Your task to perform on an android device: snooze an email in the gmail app Image 0: 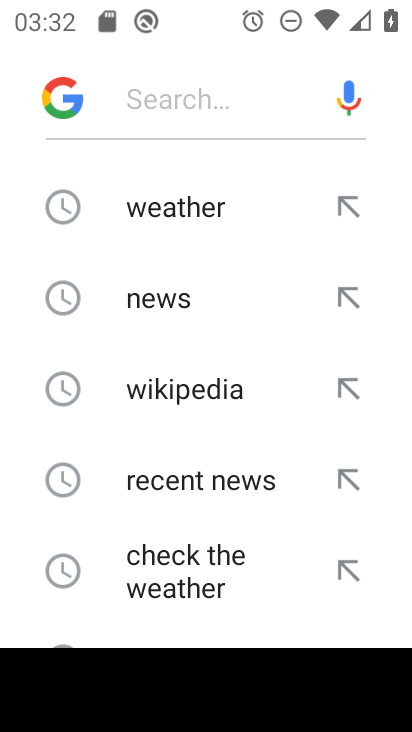
Step 0: press home button
Your task to perform on an android device: snooze an email in the gmail app Image 1: 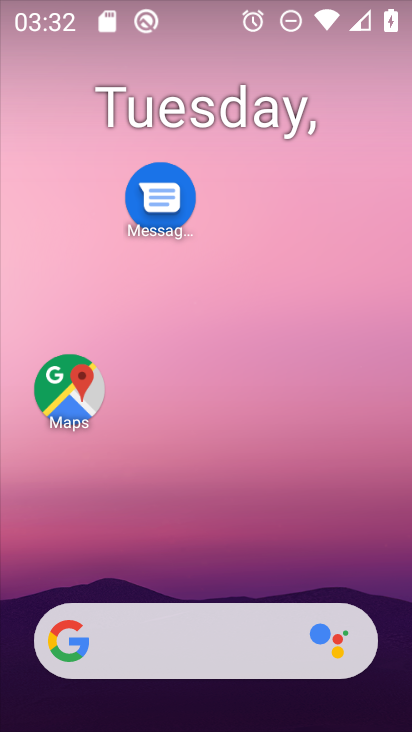
Step 1: drag from (221, 554) to (341, 136)
Your task to perform on an android device: snooze an email in the gmail app Image 2: 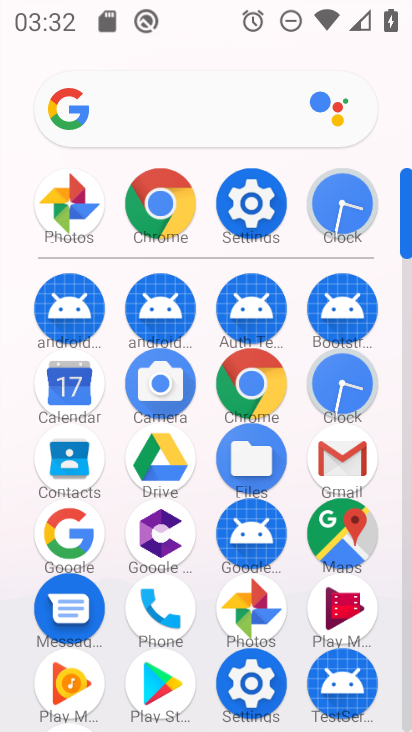
Step 2: click (324, 473)
Your task to perform on an android device: snooze an email in the gmail app Image 3: 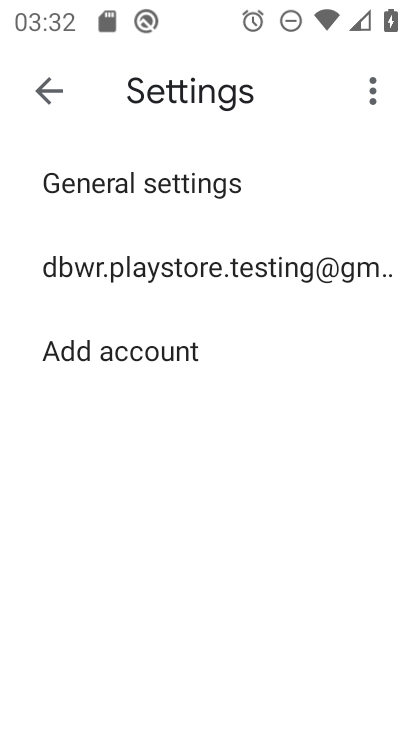
Step 3: click (60, 82)
Your task to perform on an android device: snooze an email in the gmail app Image 4: 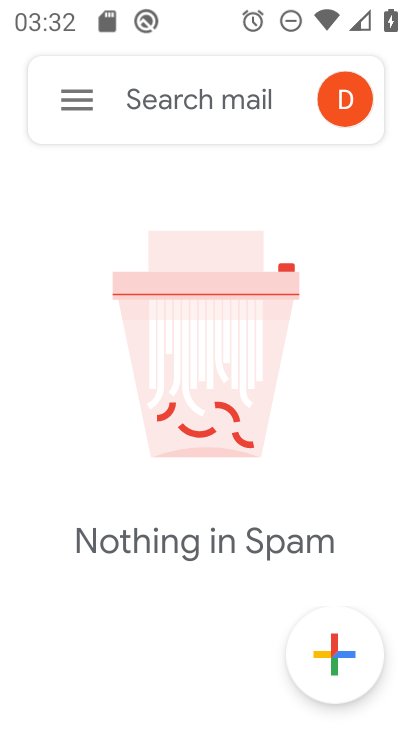
Step 4: click (63, 94)
Your task to perform on an android device: snooze an email in the gmail app Image 5: 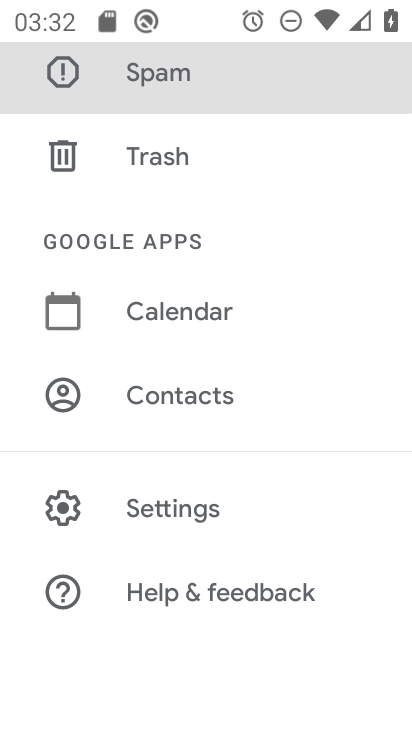
Step 5: drag from (232, 145) to (236, 548)
Your task to perform on an android device: snooze an email in the gmail app Image 6: 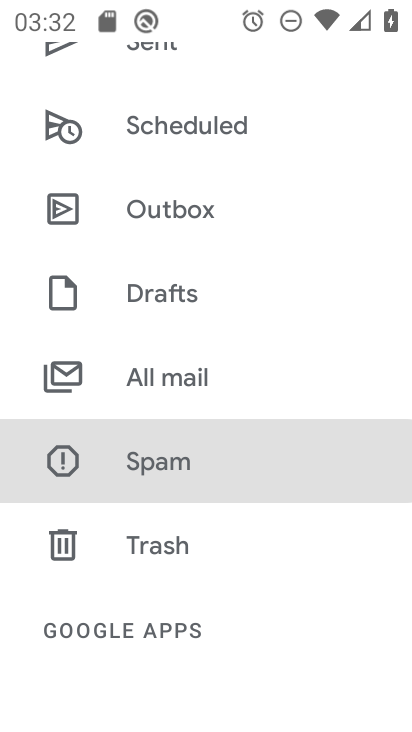
Step 6: click (200, 394)
Your task to perform on an android device: snooze an email in the gmail app Image 7: 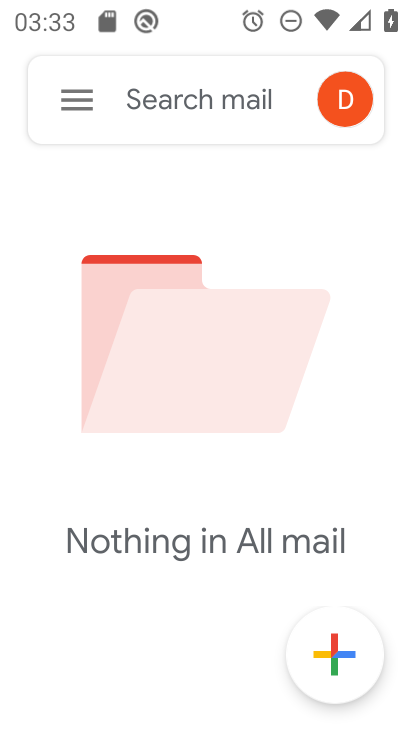
Step 7: task complete